Your task to perform on an android device: turn on airplane mode Image 0: 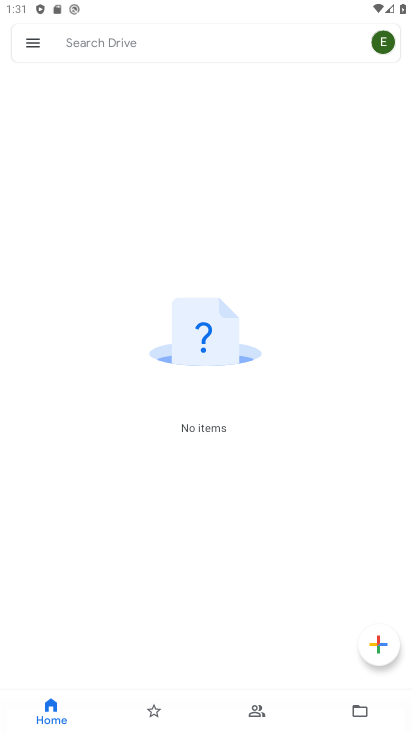
Step 0: press home button
Your task to perform on an android device: turn on airplane mode Image 1: 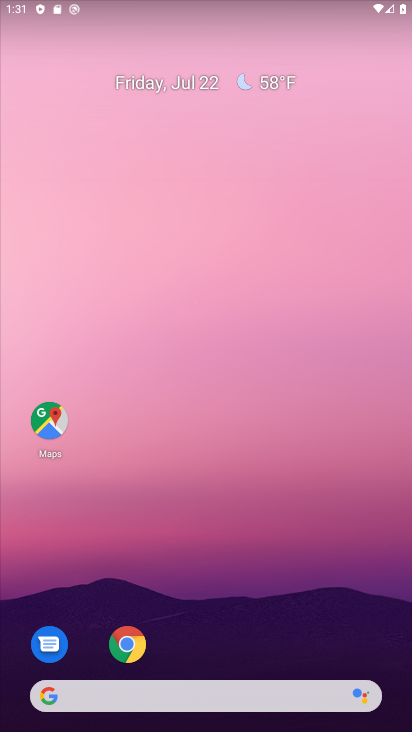
Step 1: drag from (209, 26) to (228, 409)
Your task to perform on an android device: turn on airplane mode Image 2: 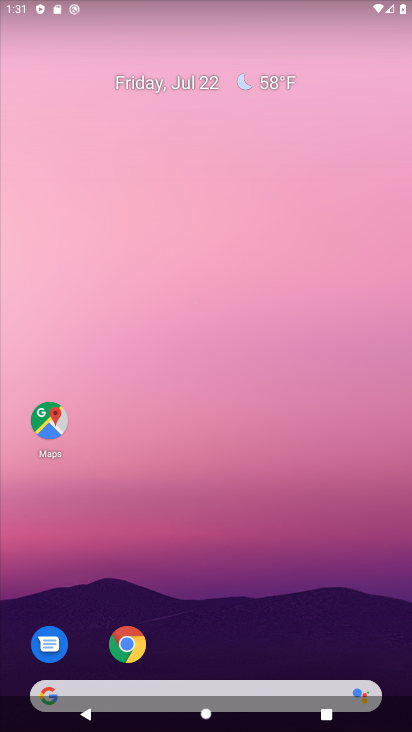
Step 2: drag from (229, 4) to (253, 338)
Your task to perform on an android device: turn on airplane mode Image 3: 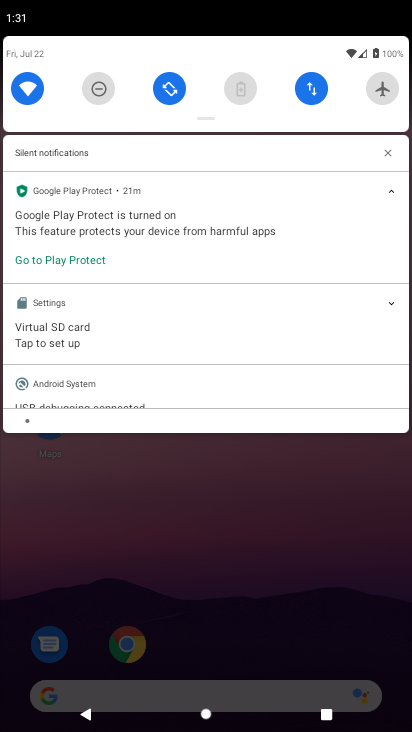
Step 3: drag from (241, 76) to (285, 387)
Your task to perform on an android device: turn on airplane mode Image 4: 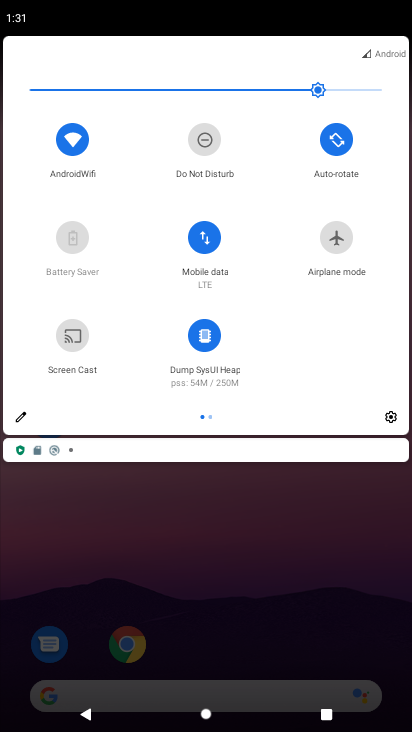
Step 4: click (330, 249)
Your task to perform on an android device: turn on airplane mode Image 5: 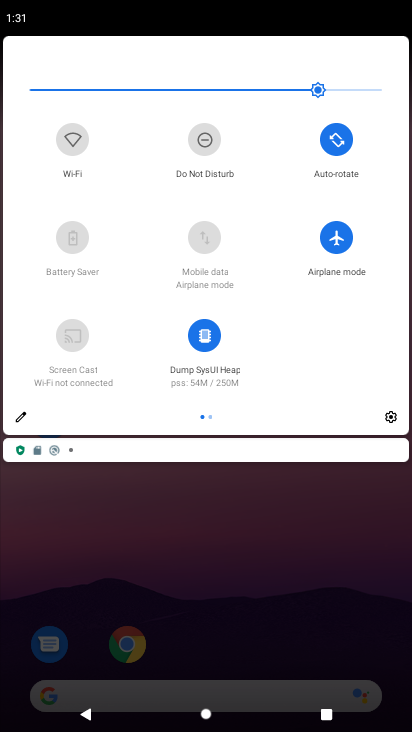
Step 5: task complete